Your task to perform on an android device: turn on translation in the chrome app Image 0: 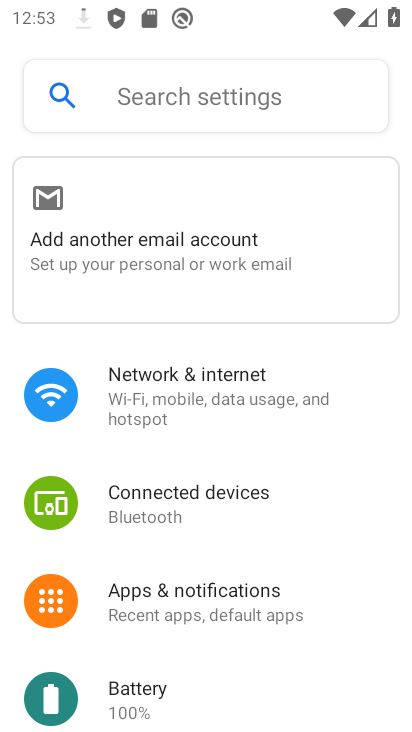
Step 0: press home button
Your task to perform on an android device: turn on translation in the chrome app Image 1: 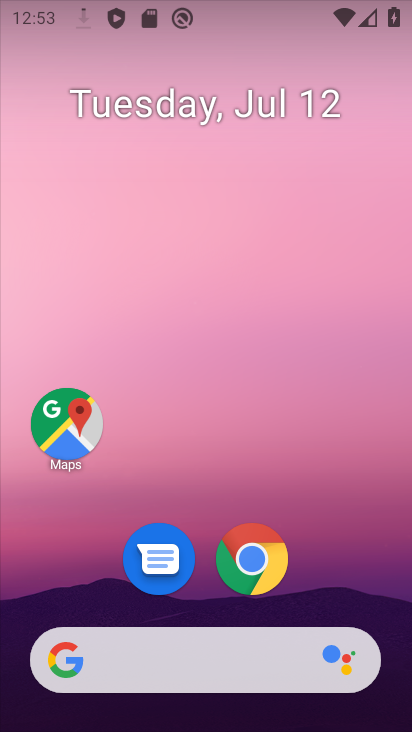
Step 1: drag from (356, 598) to (358, 81)
Your task to perform on an android device: turn on translation in the chrome app Image 2: 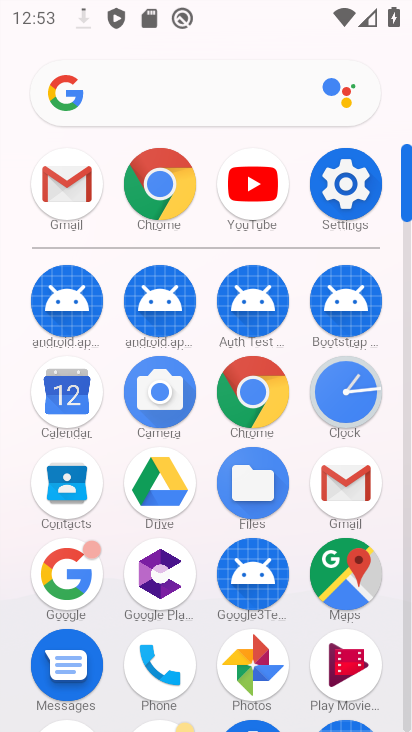
Step 2: click (265, 377)
Your task to perform on an android device: turn on translation in the chrome app Image 3: 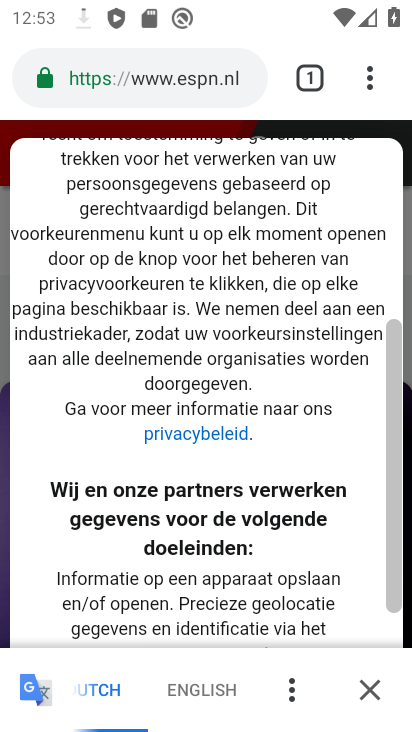
Step 3: click (367, 92)
Your task to perform on an android device: turn on translation in the chrome app Image 4: 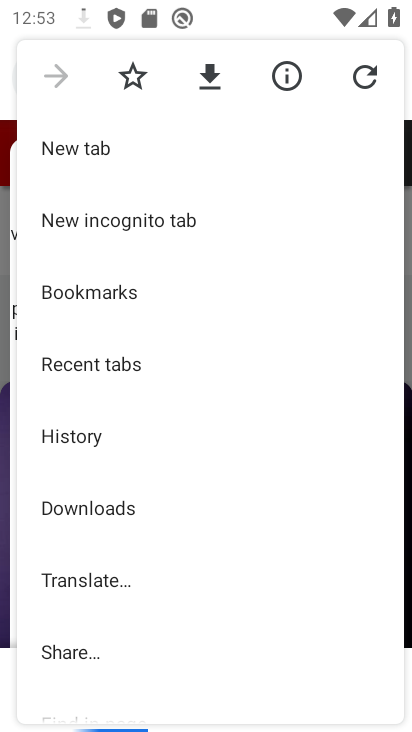
Step 4: drag from (280, 430) to (292, 356)
Your task to perform on an android device: turn on translation in the chrome app Image 5: 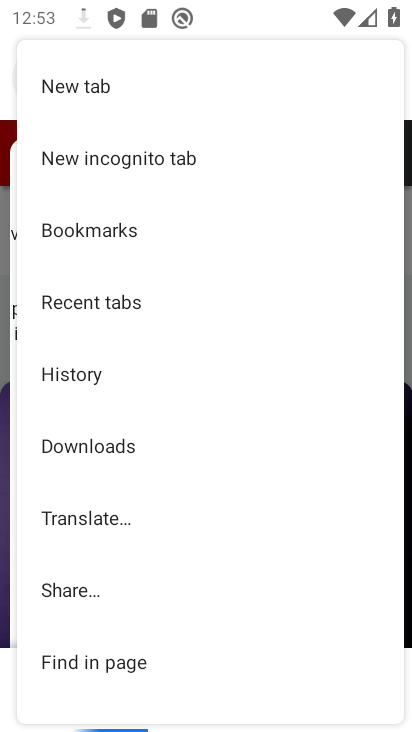
Step 5: drag from (289, 482) to (294, 402)
Your task to perform on an android device: turn on translation in the chrome app Image 6: 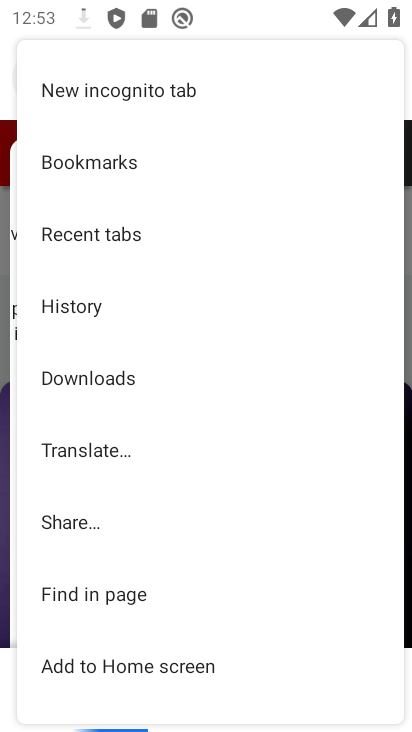
Step 6: drag from (292, 529) to (304, 413)
Your task to perform on an android device: turn on translation in the chrome app Image 7: 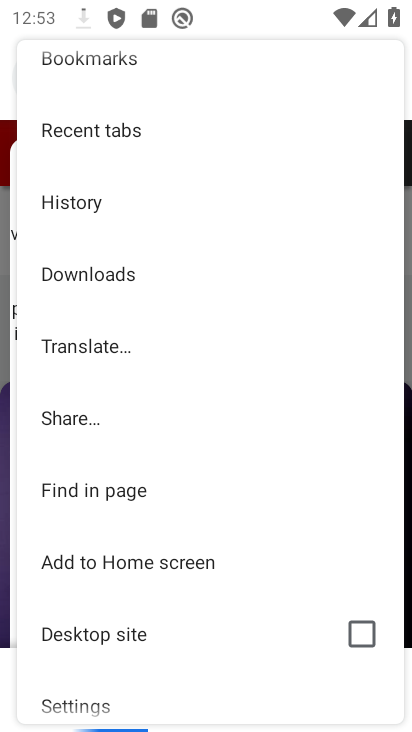
Step 7: drag from (306, 540) to (310, 410)
Your task to perform on an android device: turn on translation in the chrome app Image 8: 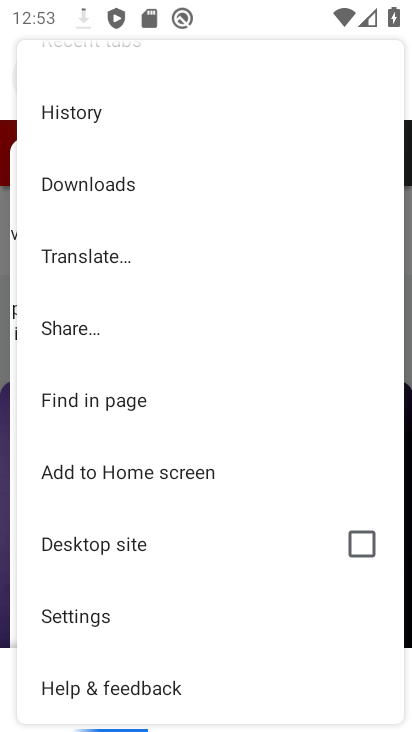
Step 8: drag from (198, 604) to (208, 472)
Your task to perform on an android device: turn on translation in the chrome app Image 9: 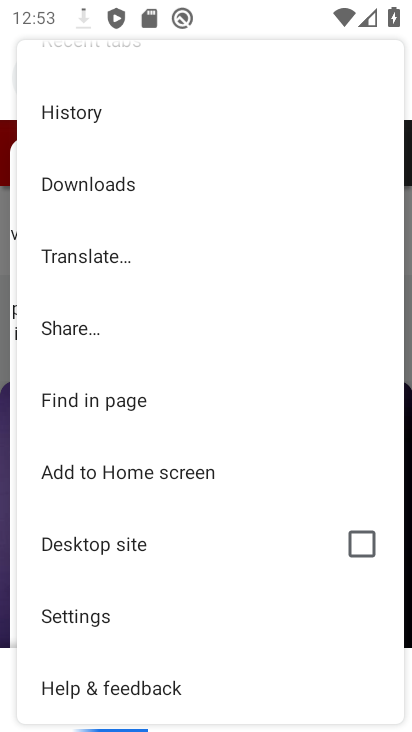
Step 9: click (99, 622)
Your task to perform on an android device: turn on translation in the chrome app Image 10: 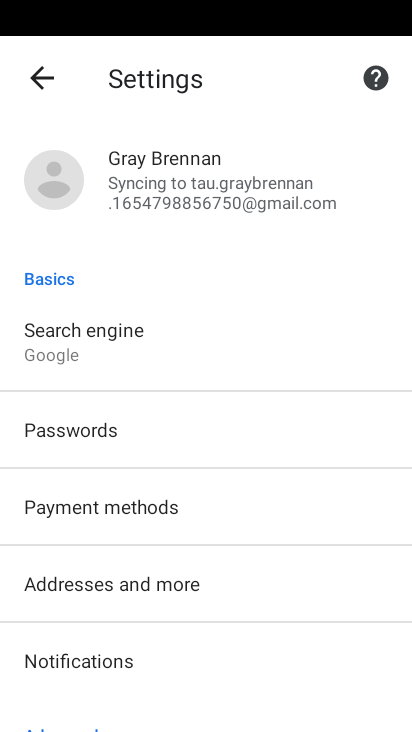
Step 10: drag from (298, 581) to (294, 443)
Your task to perform on an android device: turn on translation in the chrome app Image 11: 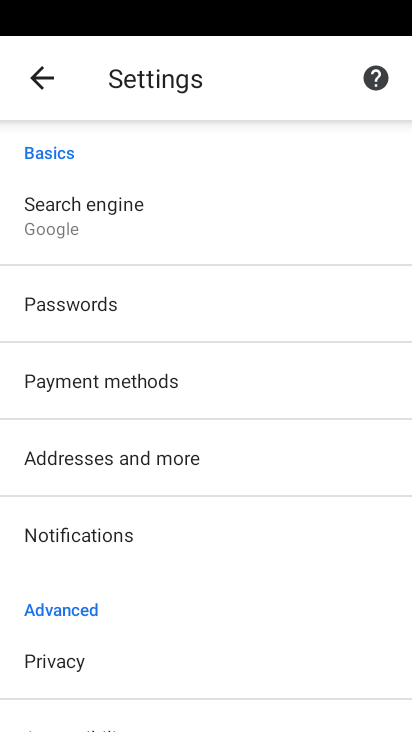
Step 11: drag from (303, 582) to (297, 435)
Your task to perform on an android device: turn on translation in the chrome app Image 12: 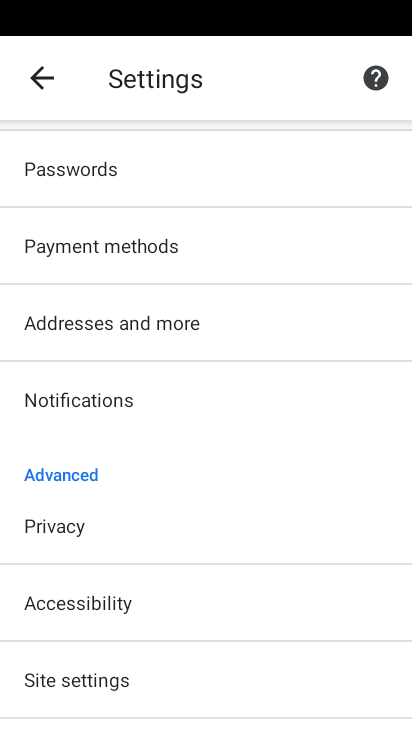
Step 12: drag from (294, 619) to (292, 508)
Your task to perform on an android device: turn on translation in the chrome app Image 13: 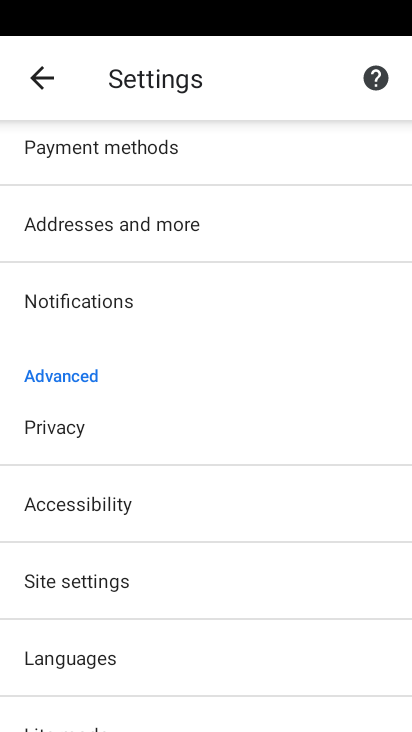
Step 13: drag from (288, 617) to (290, 500)
Your task to perform on an android device: turn on translation in the chrome app Image 14: 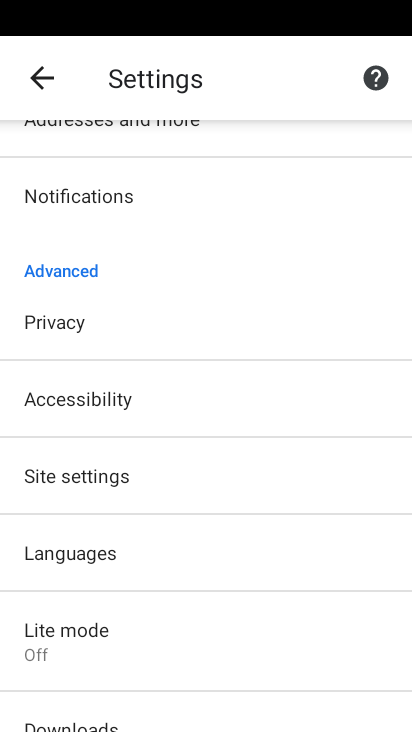
Step 14: drag from (294, 618) to (306, 496)
Your task to perform on an android device: turn on translation in the chrome app Image 15: 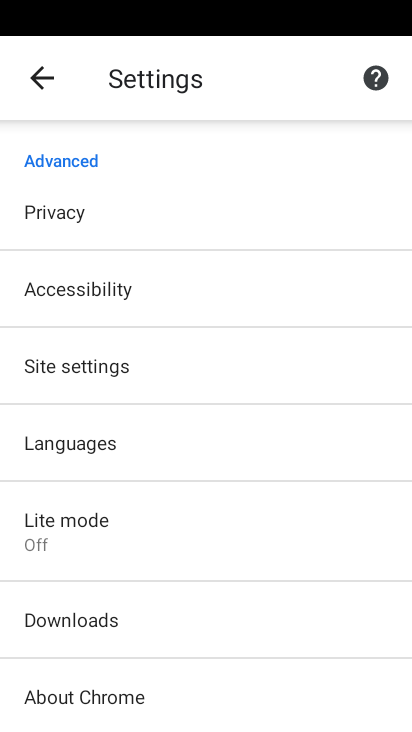
Step 15: drag from (317, 618) to (330, 523)
Your task to perform on an android device: turn on translation in the chrome app Image 16: 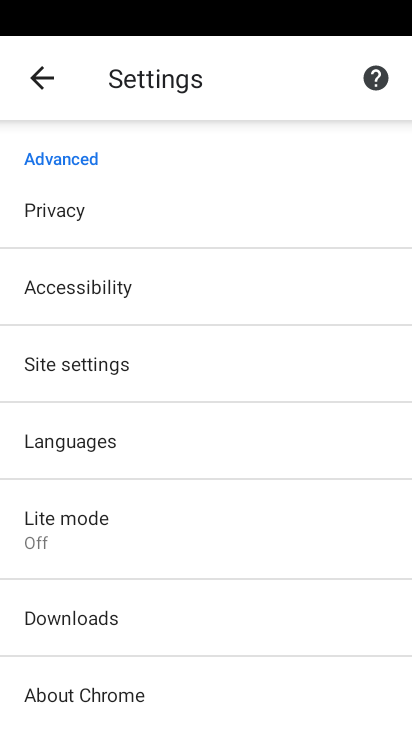
Step 16: drag from (324, 362) to (315, 502)
Your task to perform on an android device: turn on translation in the chrome app Image 17: 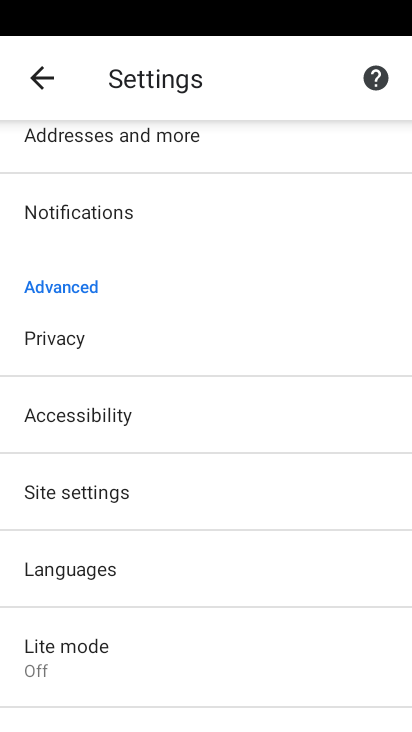
Step 17: drag from (321, 306) to (327, 430)
Your task to perform on an android device: turn on translation in the chrome app Image 18: 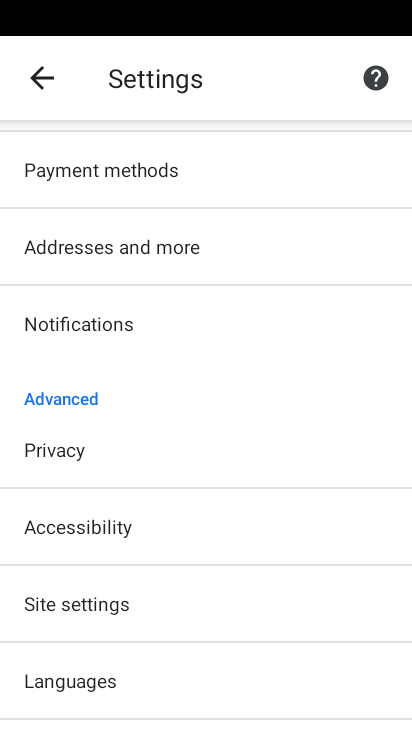
Step 18: drag from (321, 533) to (325, 372)
Your task to perform on an android device: turn on translation in the chrome app Image 19: 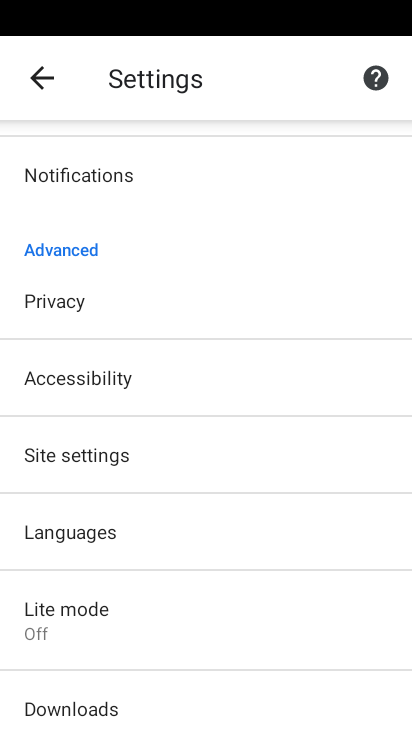
Step 19: drag from (333, 570) to (334, 373)
Your task to perform on an android device: turn on translation in the chrome app Image 20: 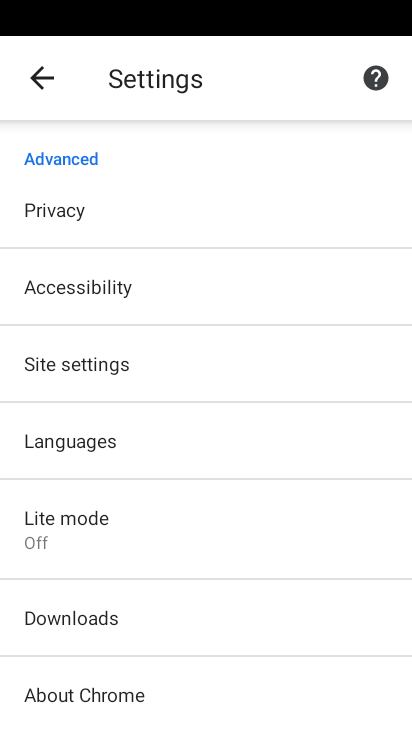
Step 20: drag from (273, 620) to (292, 389)
Your task to perform on an android device: turn on translation in the chrome app Image 21: 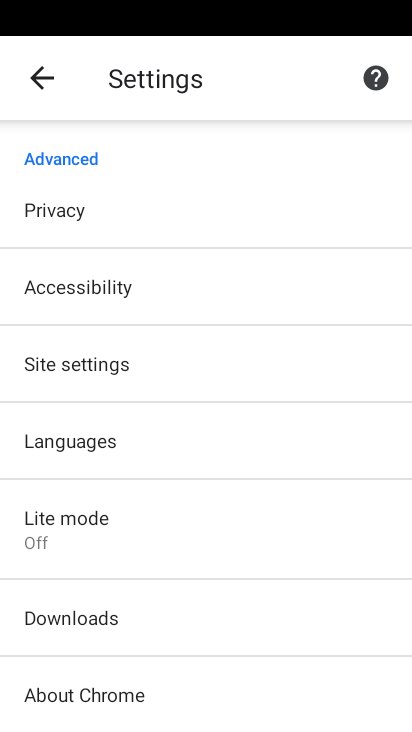
Step 21: click (227, 450)
Your task to perform on an android device: turn on translation in the chrome app Image 22: 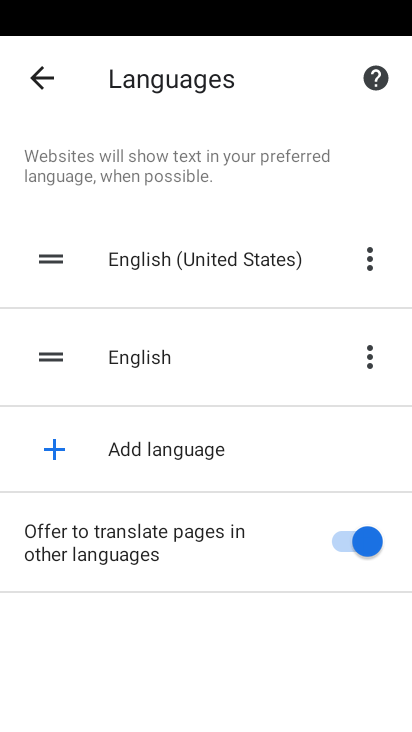
Step 22: task complete